Your task to perform on an android device: empty trash in the gmail app Image 0: 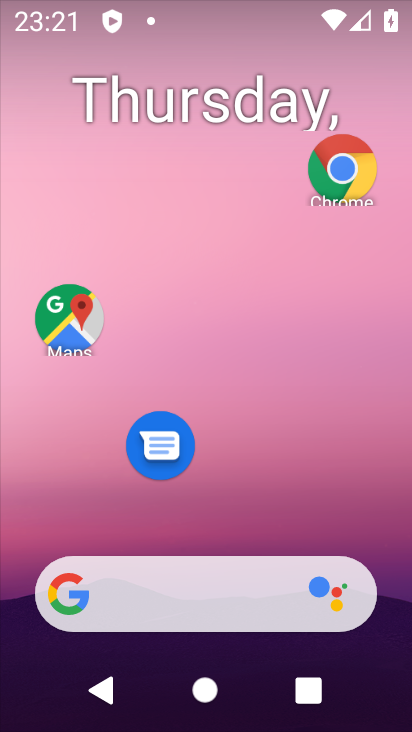
Step 0: drag from (227, 533) to (261, 120)
Your task to perform on an android device: empty trash in the gmail app Image 1: 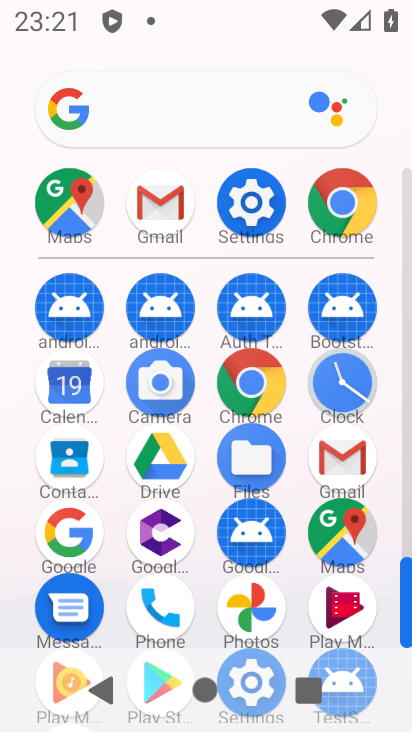
Step 1: click (346, 445)
Your task to perform on an android device: empty trash in the gmail app Image 2: 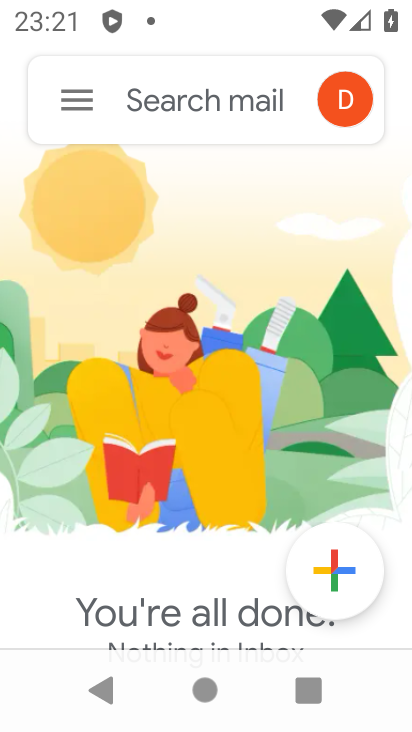
Step 2: click (70, 102)
Your task to perform on an android device: empty trash in the gmail app Image 3: 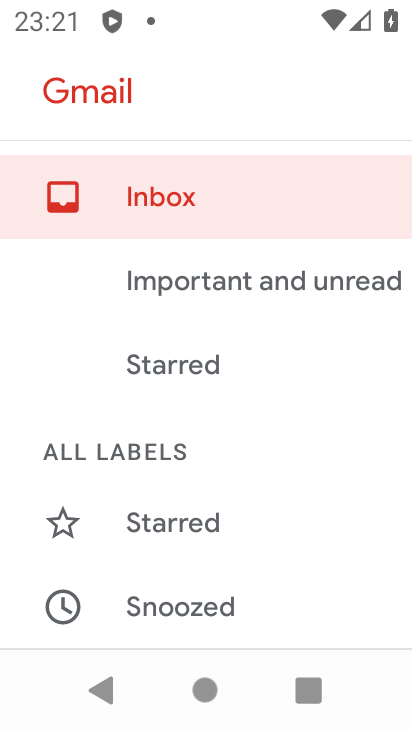
Step 3: drag from (219, 532) to (374, 63)
Your task to perform on an android device: empty trash in the gmail app Image 4: 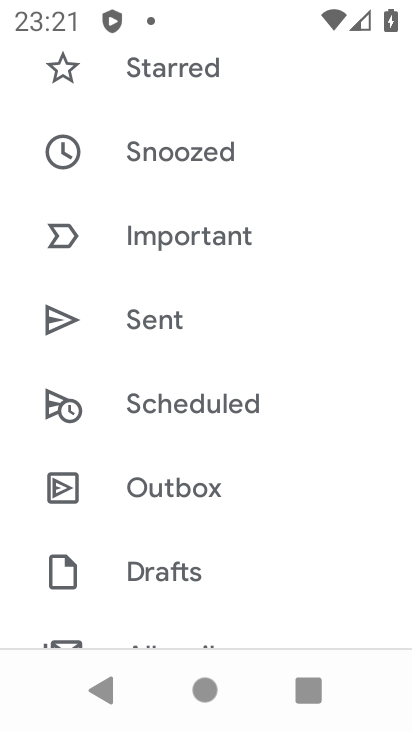
Step 4: drag from (183, 574) to (299, 71)
Your task to perform on an android device: empty trash in the gmail app Image 5: 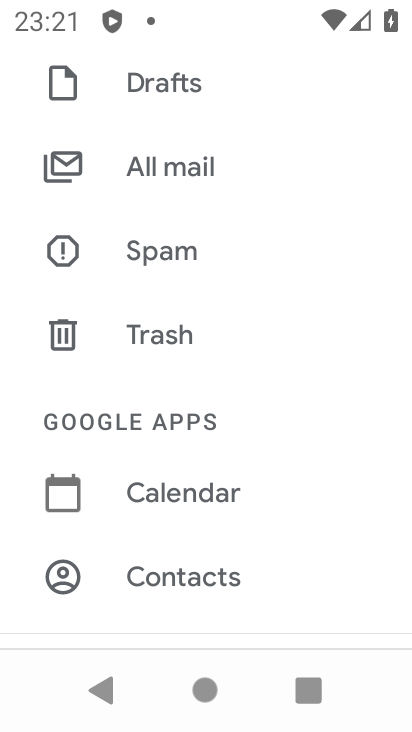
Step 5: click (199, 344)
Your task to perform on an android device: empty trash in the gmail app Image 6: 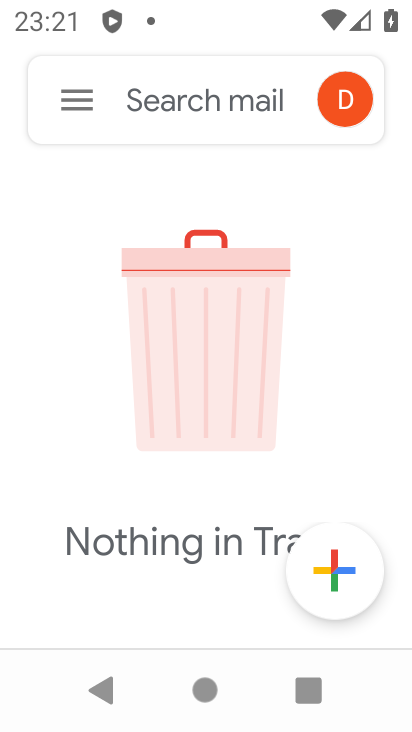
Step 6: task complete